Your task to perform on an android device: change the clock style Image 0: 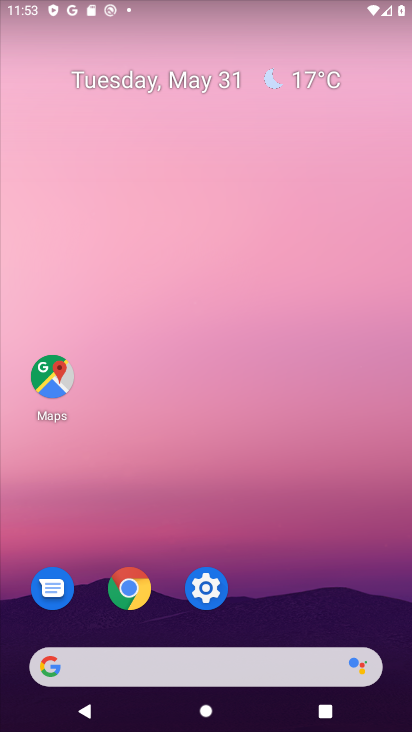
Step 0: drag from (249, 683) to (204, 323)
Your task to perform on an android device: change the clock style Image 1: 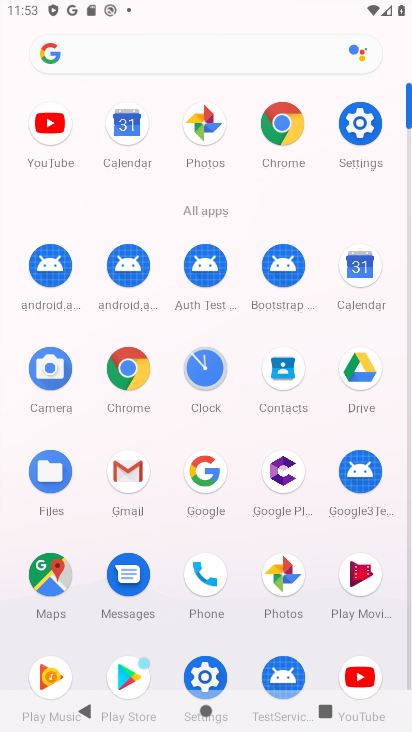
Step 1: click (199, 371)
Your task to perform on an android device: change the clock style Image 2: 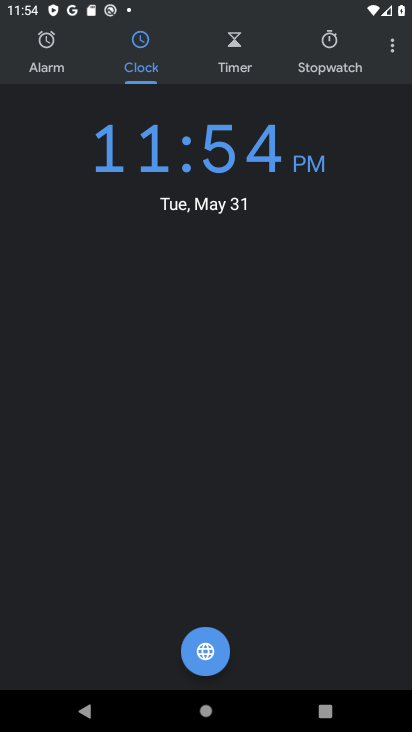
Step 2: click (395, 52)
Your task to perform on an android device: change the clock style Image 3: 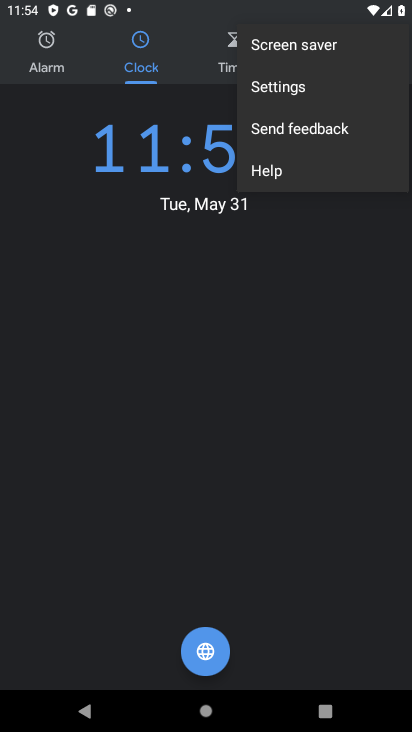
Step 3: click (301, 80)
Your task to perform on an android device: change the clock style Image 4: 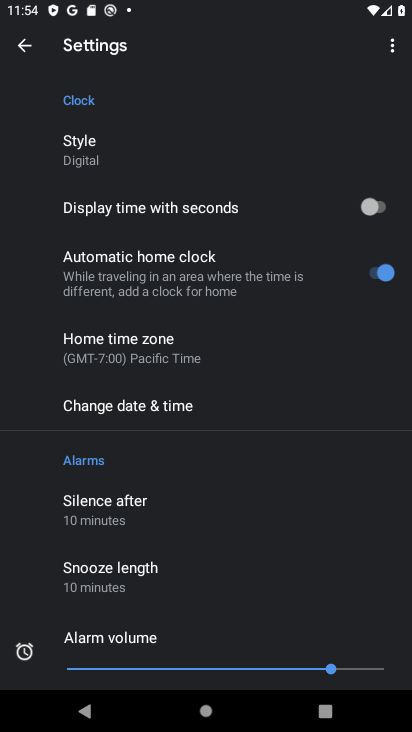
Step 4: click (101, 154)
Your task to perform on an android device: change the clock style Image 5: 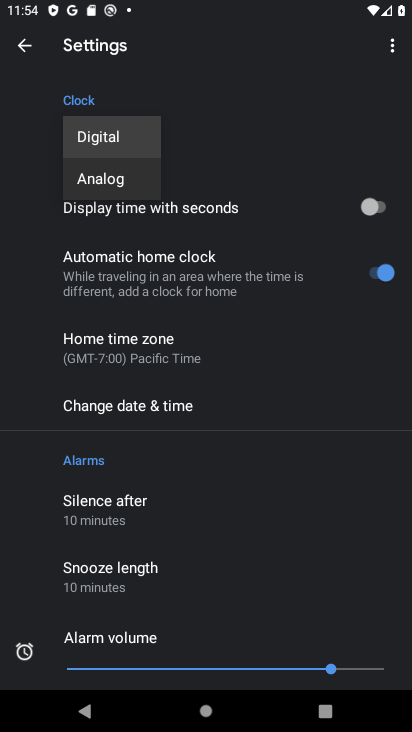
Step 5: click (99, 183)
Your task to perform on an android device: change the clock style Image 6: 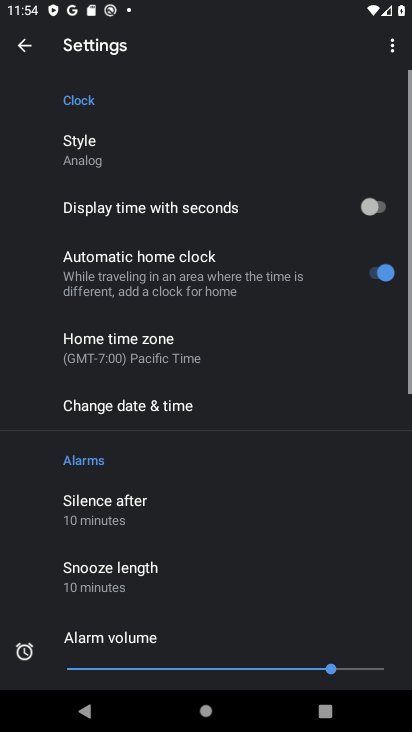
Step 6: task complete